Your task to perform on an android device: Open Chrome and go to settings Image 0: 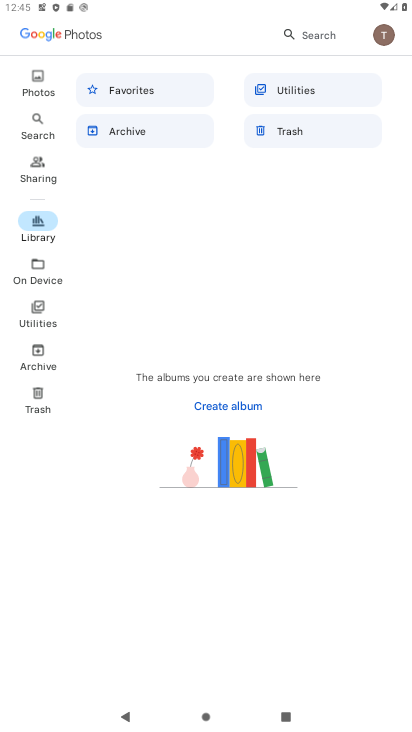
Step 0: press home button
Your task to perform on an android device: Open Chrome and go to settings Image 1: 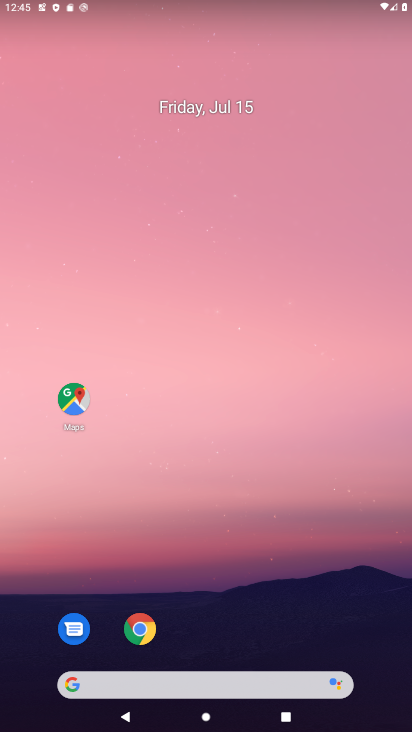
Step 1: drag from (255, 636) to (263, 97)
Your task to perform on an android device: Open Chrome and go to settings Image 2: 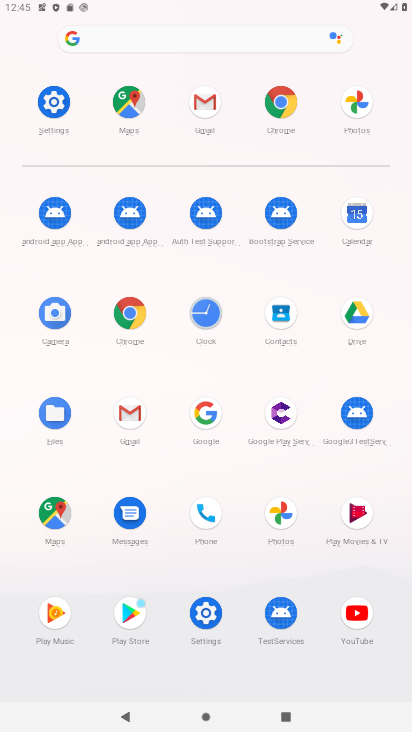
Step 2: click (281, 106)
Your task to perform on an android device: Open Chrome and go to settings Image 3: 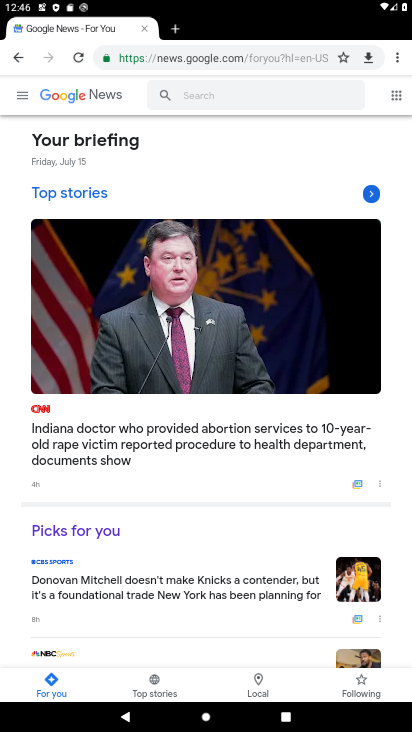
Step 3: task complete